Your task to perform on an android device: Show the shopping cart on ebay.com. Search for "macbook pro 13 inch" on ebay.com, select the first entry, and add it to the cart. Image 0: 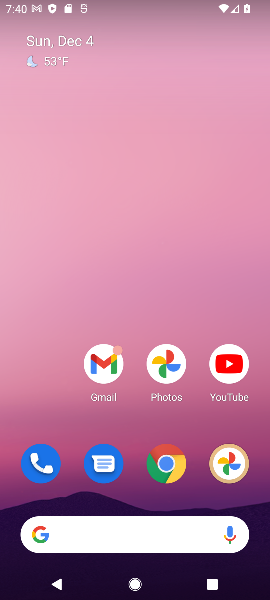
Step 0: click (123, 519)
Your task to perform on an android device: Show the shopping cart on ebay.com. Search for "macbook pro 13 inch" on ebay.com, select the first entry, and add it to the cart. Image 1: 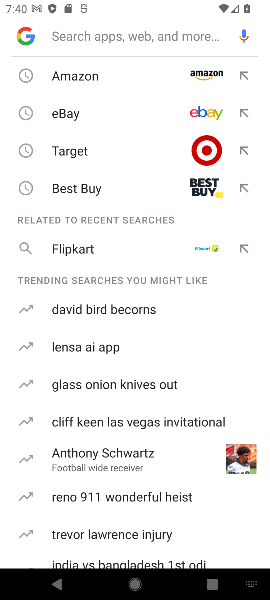
Step 1: click (118, 109)
Your task to perform on an android device: Show the shopping cart on ebay.com. Search for "macbook pro 13 inch" on ebay.com, select the first entry, and add it to the cart. Image 2: 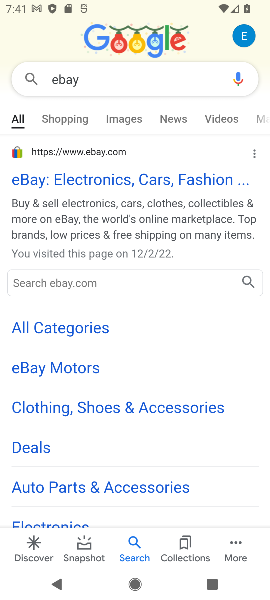
Step 2: click (135, 185)
Your task to perform on an android device: Show the shopping cart on ebay.com. Search for "macbook pro 13 inch" on ebay.com, select the first entry, and add it to the cart. Image 3: 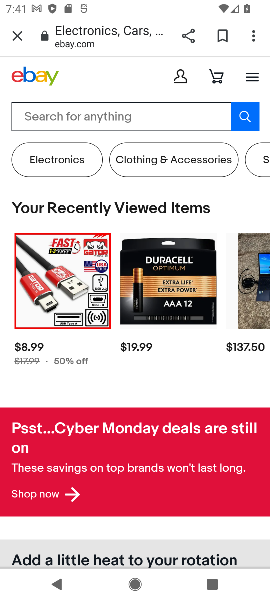
Step 3: task complete